Your task to perform on an android device: add a label to a message in the gmail app Image 0: 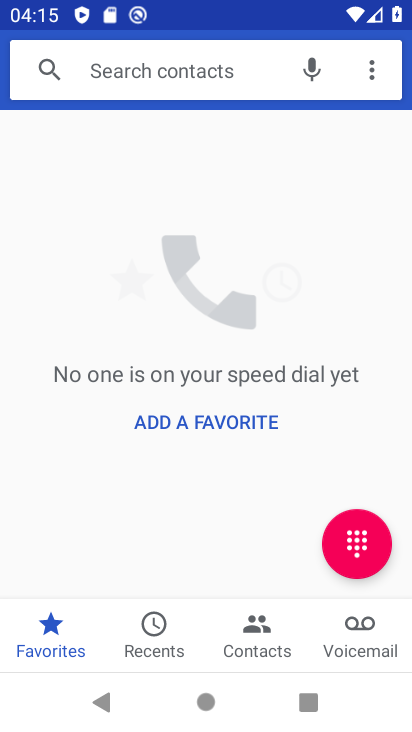
Step 0: press home button
Your task to perform on an android device: add a label to a message in the gmail app Image 1: 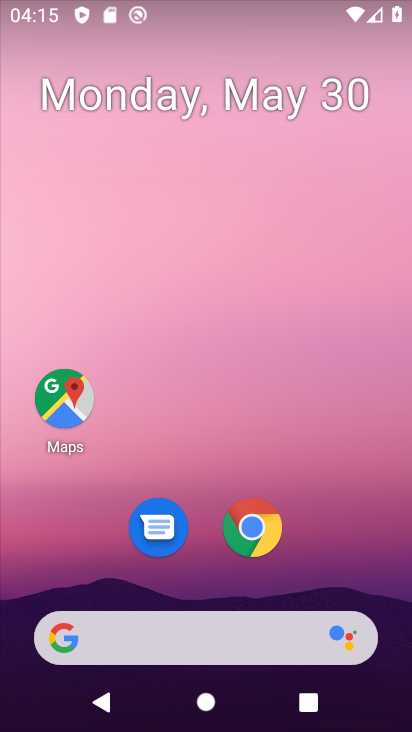
Step 1: drag from (191, 707) to (183, 0)
Your task to perform on an android device: add a label to a message in the gmail app Image 2: 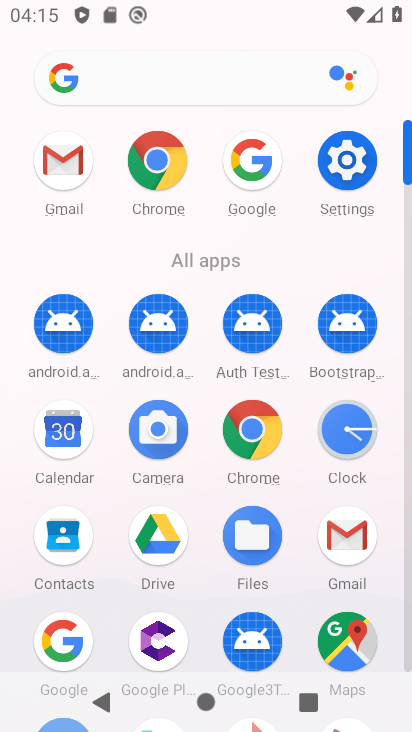
Step 2: click (346, 542)
Your task to perform on an android device: add a label to a message in the gmail app Image 3: 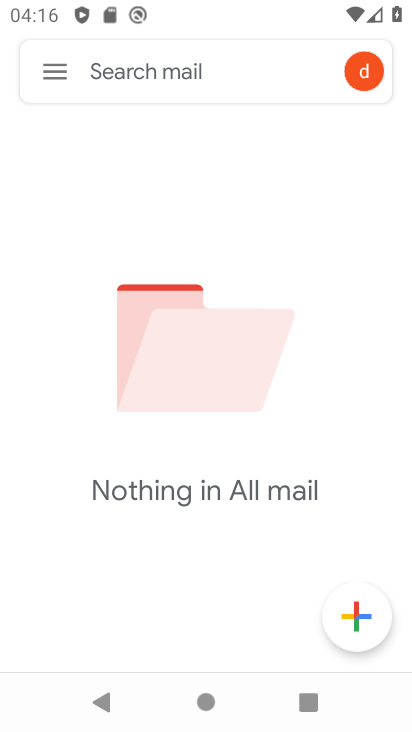
Step 3: click (59, 61)
Your task to perform on an android device: add a label to a message in the gmail app Image 4: 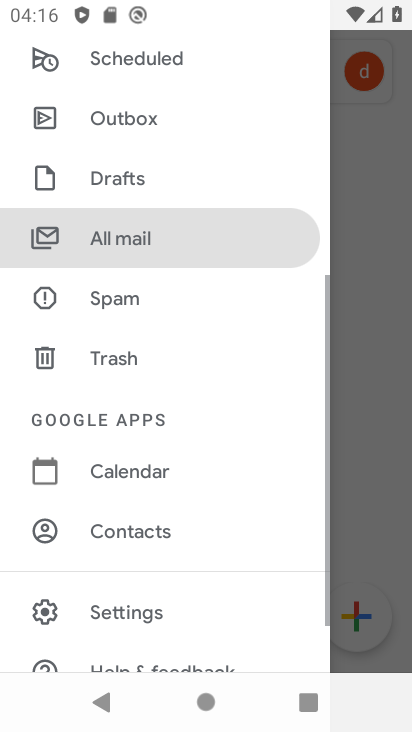
Step 4: drag from (131, 150) to (195, 603)
Your task to perform on an android device: add a label to a message in the gmail app Image 5: 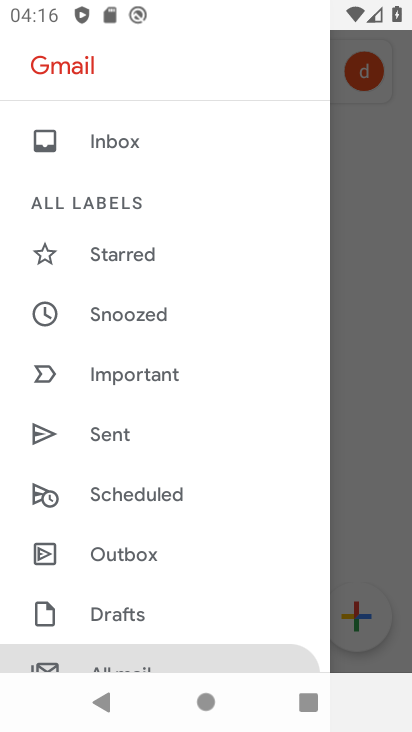
Step 5: click (129, 140)
Your task to perform on an android device: add a label to a message in the gmail app Image 6: 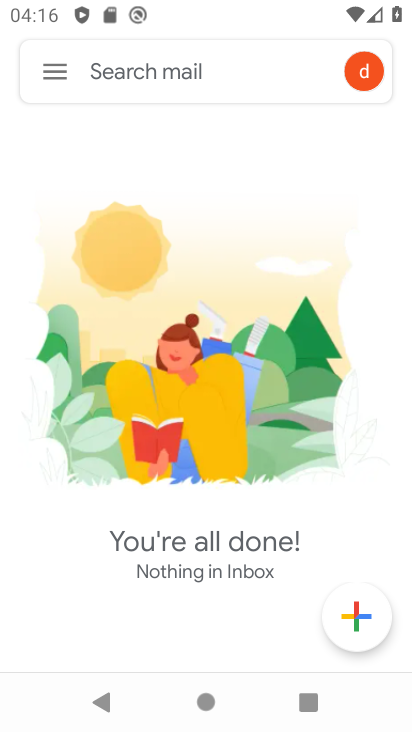
Step 6: task complete